Your task to perform on an android device: change the clock display to digital Image 0: 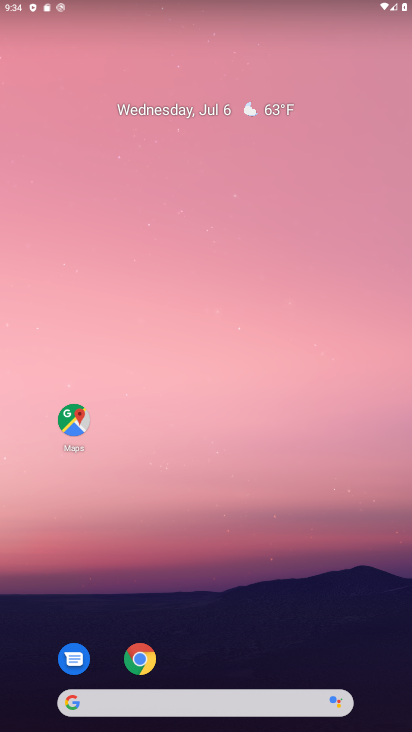
Step 0: drag from (242, 642) to (390, 103)
Your task to perform on an android device: change the clock display to digital Image 1: 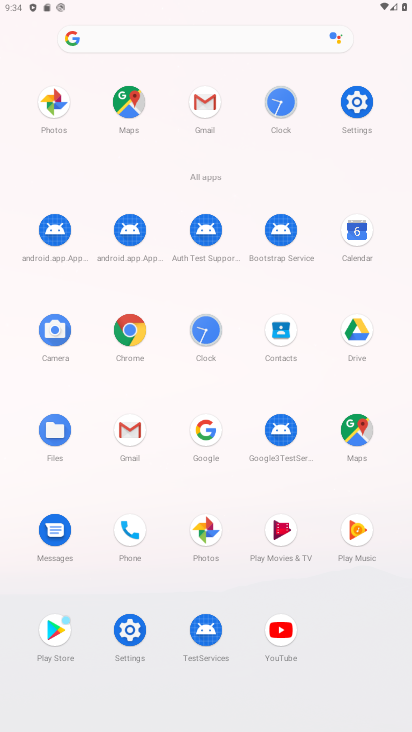
Step 1: click (274, 103)
Your task to perform on an android device: change the clock display to digital Image 2: 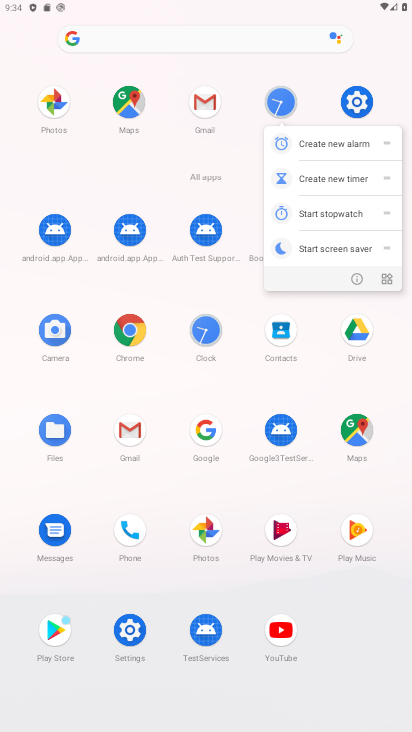
Step 2: click (359, 277)
Your task to perform on an android device: change the clock display to digital Image 3: 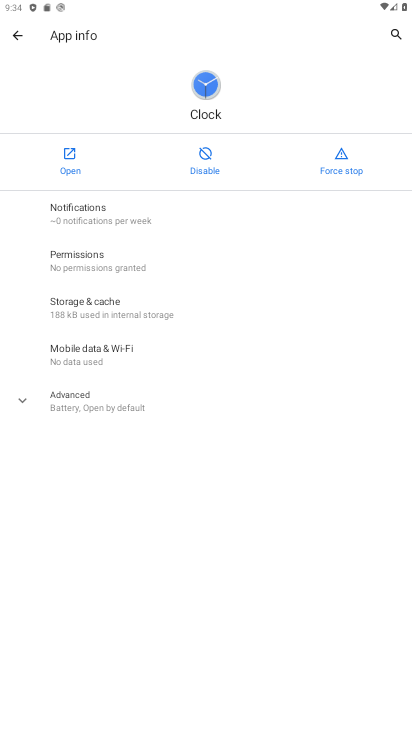
Step 3: click (45, 162)
Your task to perform on an android device: change the clock display to digital Image 4: 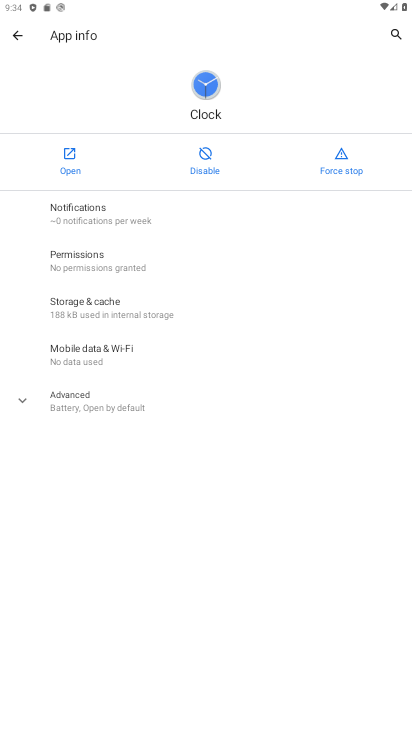
Step 4: click (58, 162)
Your task to perform on an android device: change the clock display to digital Image 5: 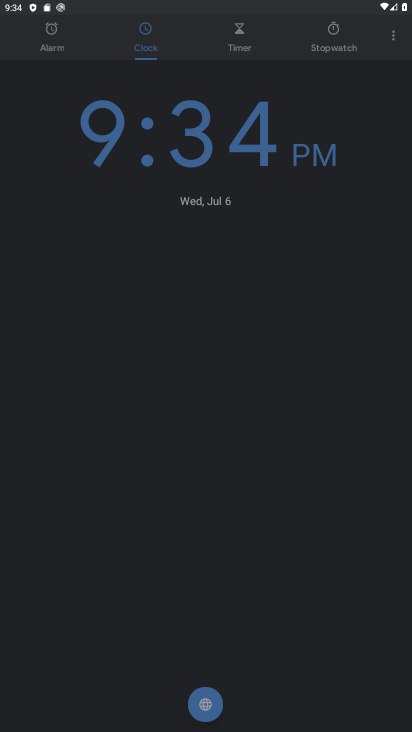
Step 5: drag from (284, 552) to (253, 327)
Your task to perform on an android device: change the clock display to digital Image 6: 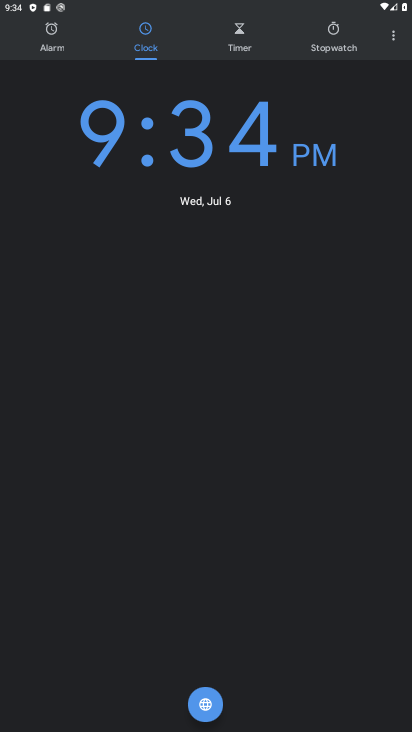
Step 6: drag from (182, 546) to (253, 253)
Your task to perform on an android device: change the clock display to digital Image 7: 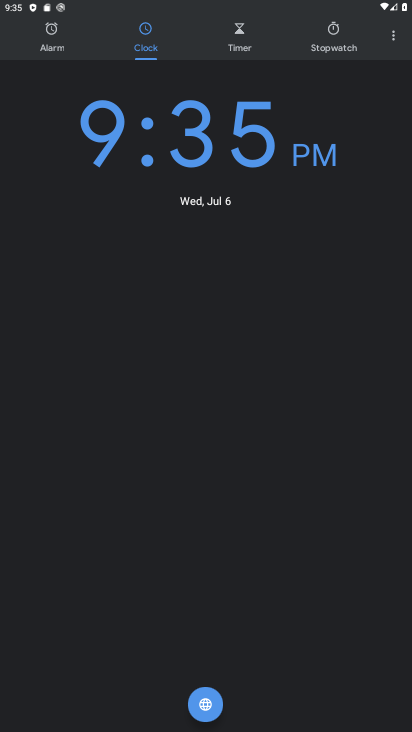
Step 7: click (389, 47)
Your task to perform on an android device: change the clock display to digital Image 8: 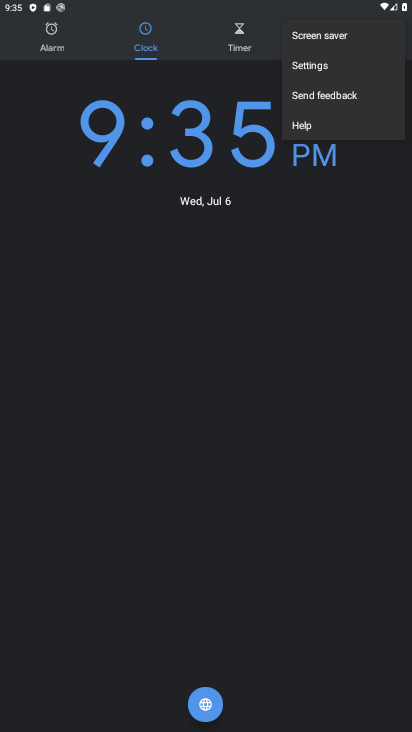
Step 8: click (316, 63)
Your task to perform on an android device: change the clock display to digital Image 9: 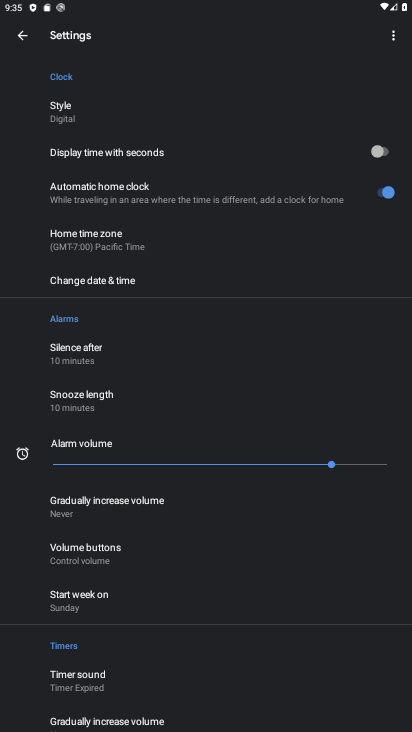
Step 9: click (106, 121)
Your task to perform on an android device: change the clock display to digital Image 10: 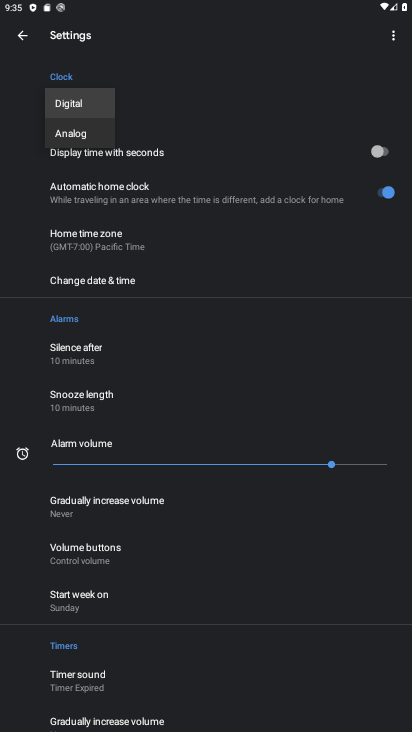
Step 10: click (86, 111)
Your task to perform on an android device: change the clock display to digital Image 11: 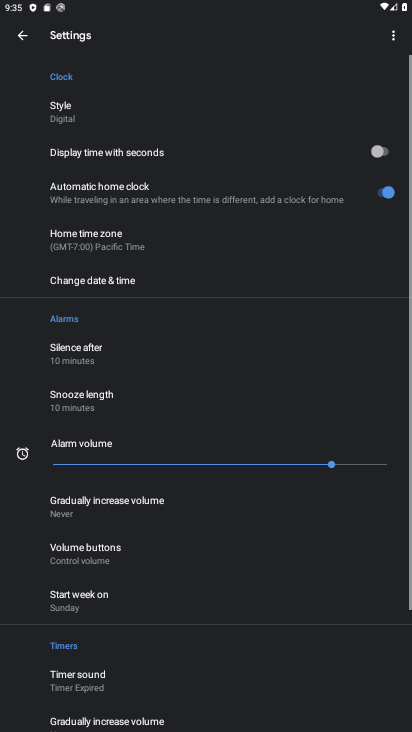
Step 11: task complete